Your task to perform on an android device: open app "Venmo" (install if not already installed), go to login, and select forgot password Image 0: 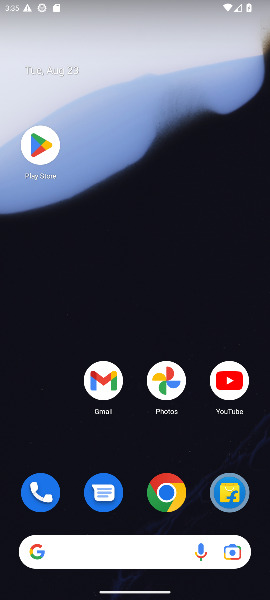
Step 0: drag from (133, 515) to (157, 55)
Your task to perform on an android device: open app "Venmo" (install if not already installed), go to login, and select forgot password Image 1: 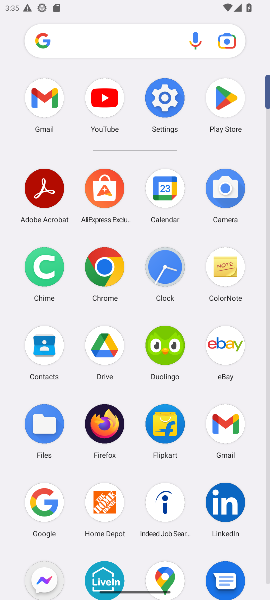
Step 1: drag from (169, 294) to (194, 229)
Your task to perform on an android device: open app "Venmo" (install if not already installed), go to login, and select forgot password Image 2: 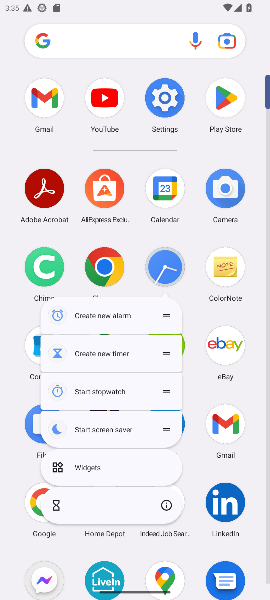
Step 2: click (241, 375)
Your task to perform on an android device: open app "Venmo" (install if not already installed), go to login, and select forgot password Image 3: 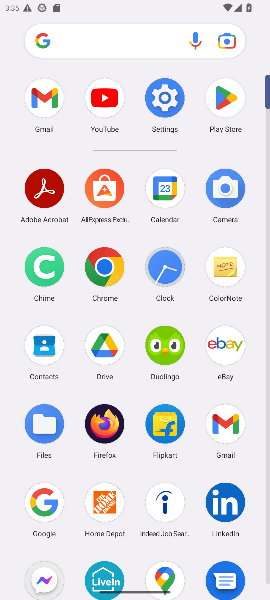
Step 3: drag from (131, 479) to (145, 142)
Your task to perform on an android device: open app "Venmo" (install if not already installed), go to login, and select forgot password Image 4: 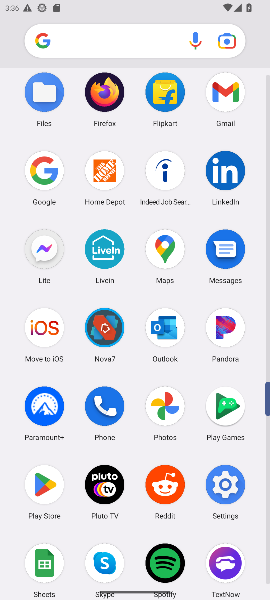
Step 4: drag from (132, 547) to (157, 215)
Your task to perform on an android device: open app "Venmo" (install if not already installed), go to login, and select forgot password Image 5: 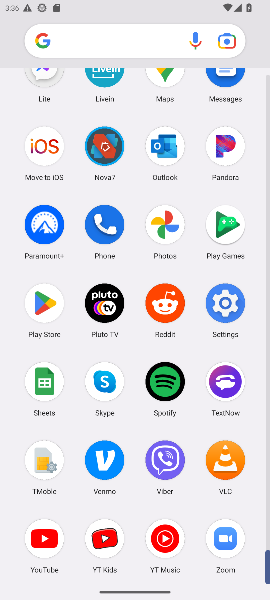
Step 5: click (111, 466)
Your task to perform on an android device: open app "Venmo" (install if not already installed), go to login, and select forgot password Image 6: 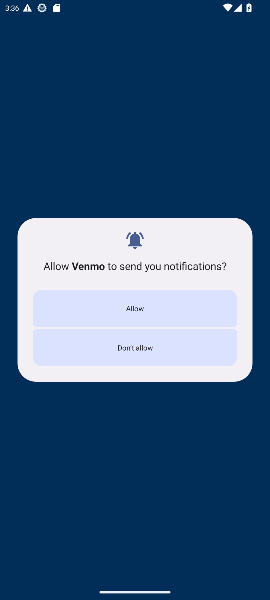
Step 6: task complete